Your task to perform on an android device: Is it going to rain today? Image 0: 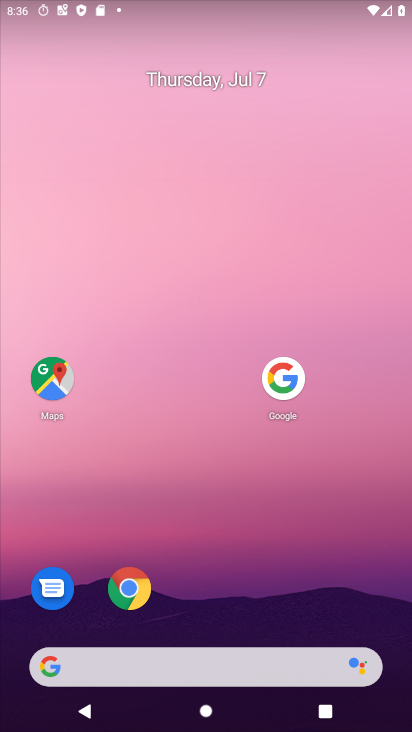
Step 0: click (231, 665)
Your task to perform on an android device: Is it going to rain today? Image 1: 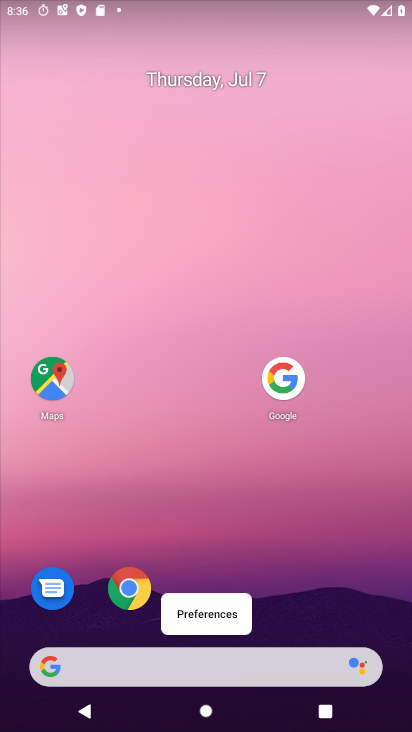
Step 1: click (219, 669)
Your task to perform on an android device: Is it going to rain today? Image 2: 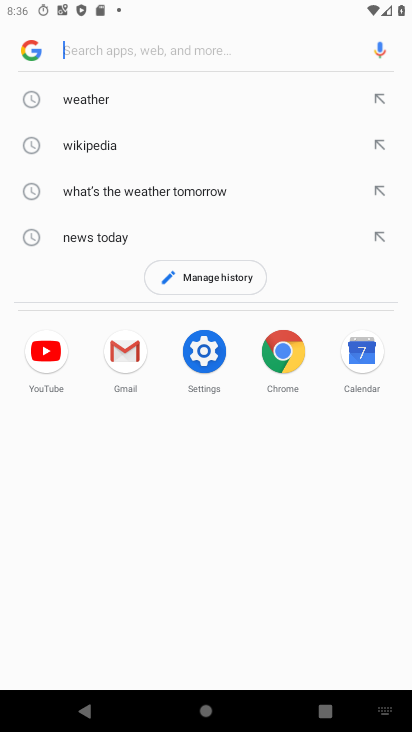
Step 2: type "Is it going to rain today"
Your task to perform on an android device: Is it going to rain today? Image 3: 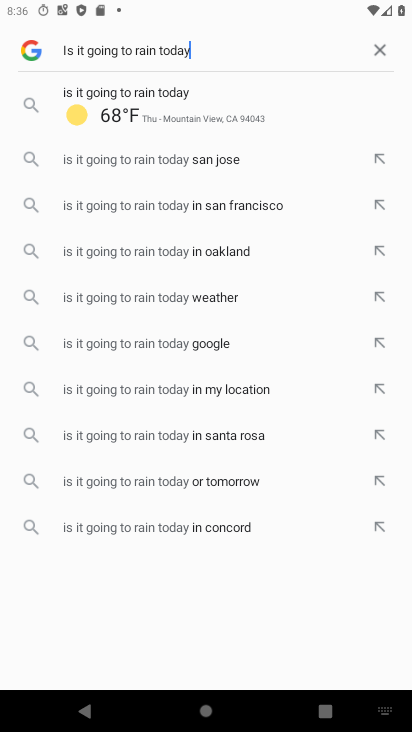
Step 3: click (176, 94)
Your task to perform on an android device: Is it going to rain today? Image 4: 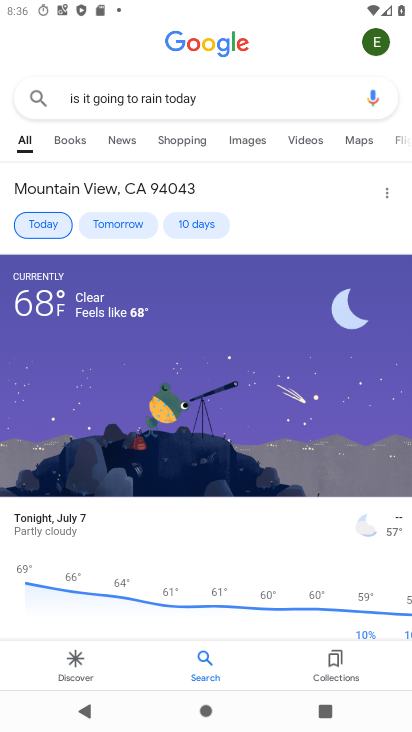
Step 4: task complete